Your task to perform on an android device: manage bookmarks in the chrome app Image 0: 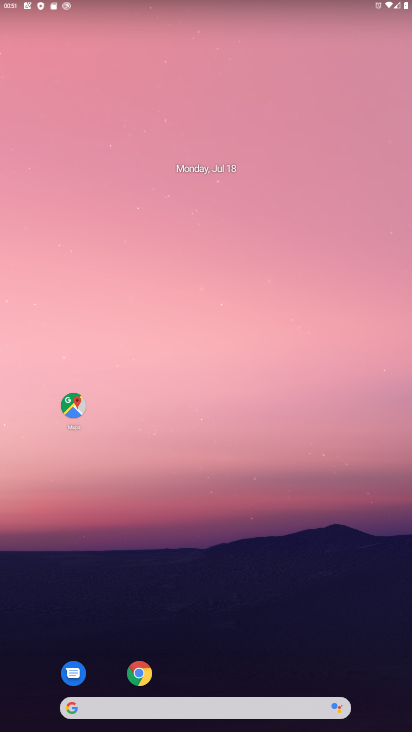
Step 0: click (141, 673)
Your task to perform on an android device: manage bookmarks in the chrome app Image 1: 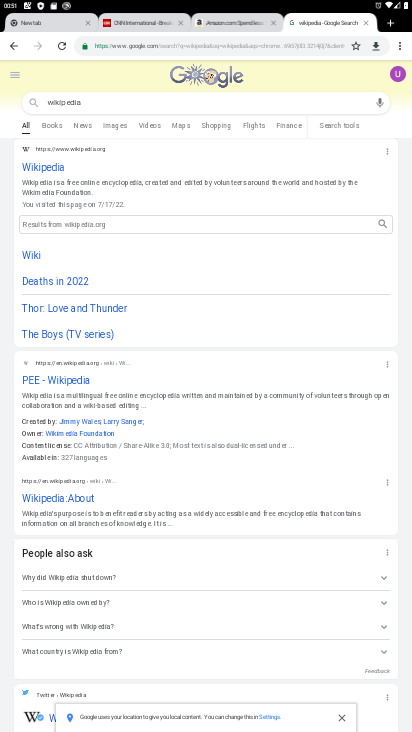
Step 1: click (384, 22)
Your task to perform on an android device: manage bookmarks in the chrome app Image 2: 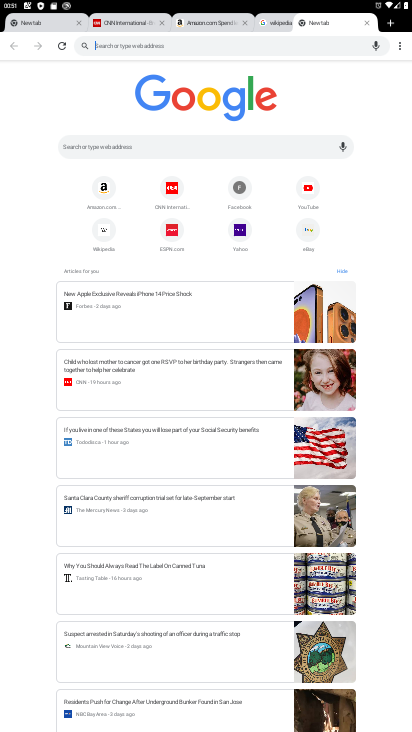
Step 2: click (389, 53)
Your task to perform on an android device: manage bookmarks in the chrome app Image 3: 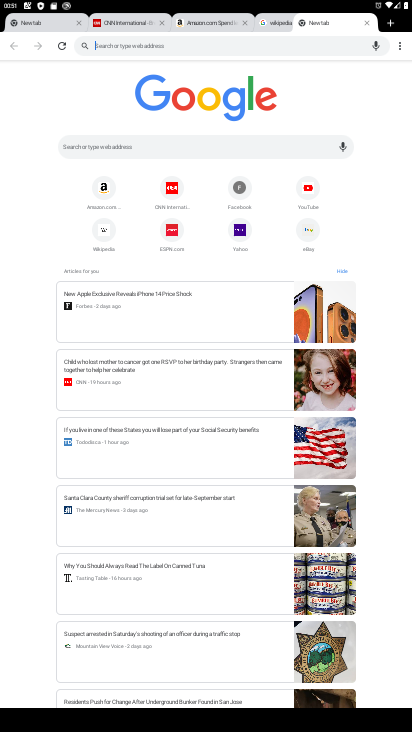
Step 3: click (391, 52)
Your task to perform on an android device: manage bookmarks in the chrome app Image 4: 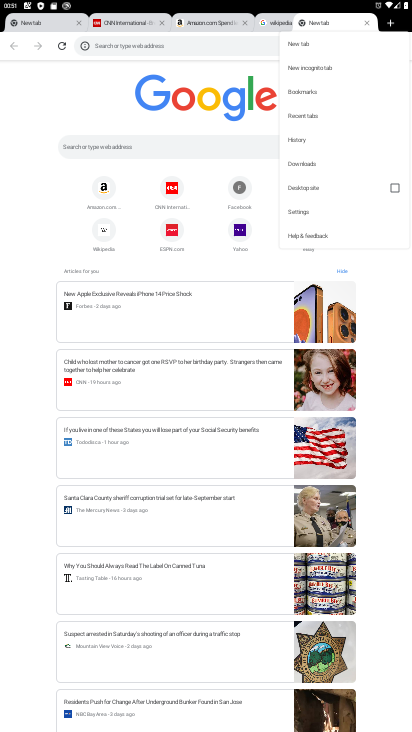
Step 4: click (334, 110)
Your task to perform on an android device: manage bookmarks in the chrome app Image 5: 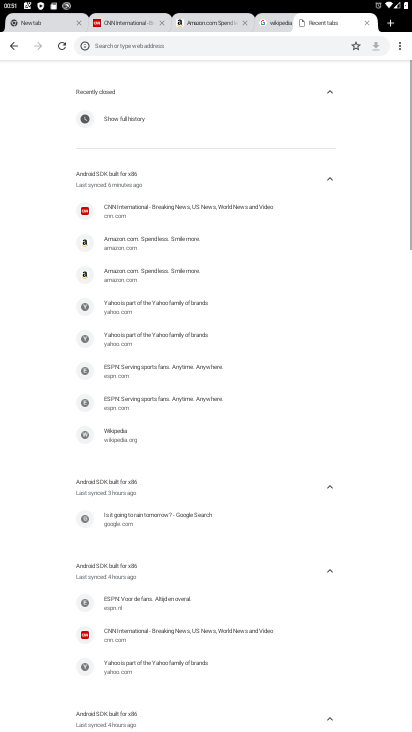
Step 5: task complete